Your task to perform on an android device: Go to accessibility settings Image 0: 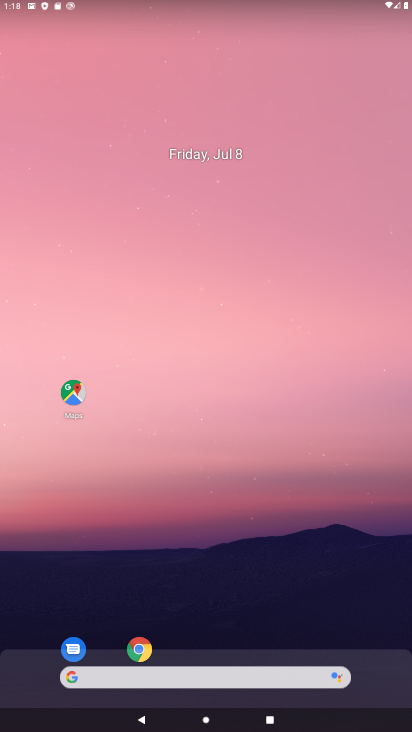
Step 0: drag from (244, 427) to (222, 84)
Your task to perform on an android device: Go to accessibility settings Image 1: 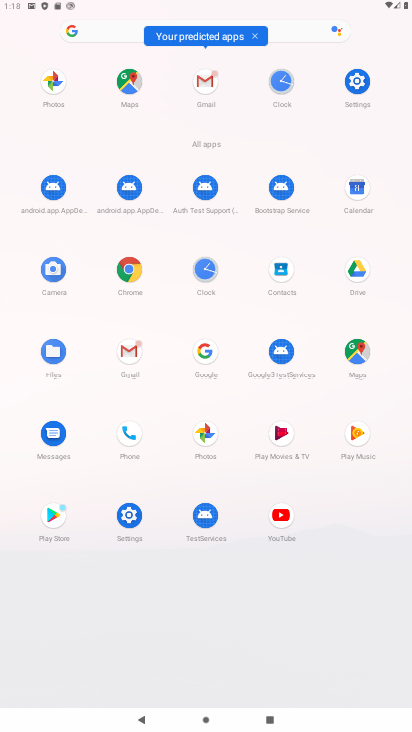
Step 1: click (354, 77)
Your task to perform on an android device: Go to accessibility settings Image 2: 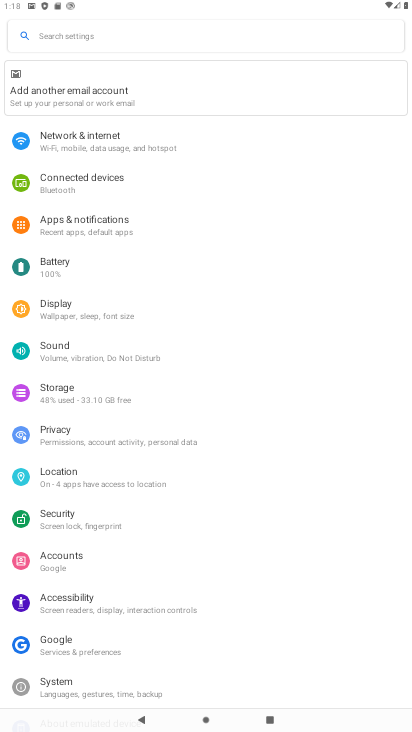
Step 2: click (93, 607)
Your task to perform on an android device: Go to accessibility settings Image 3: 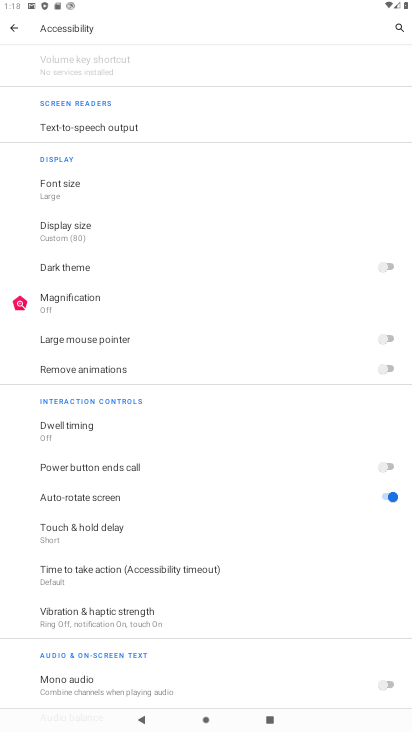
Step 3: task complete